Your task to perform on an android device: Search for vegetarian restaurants on Maps Image 0: 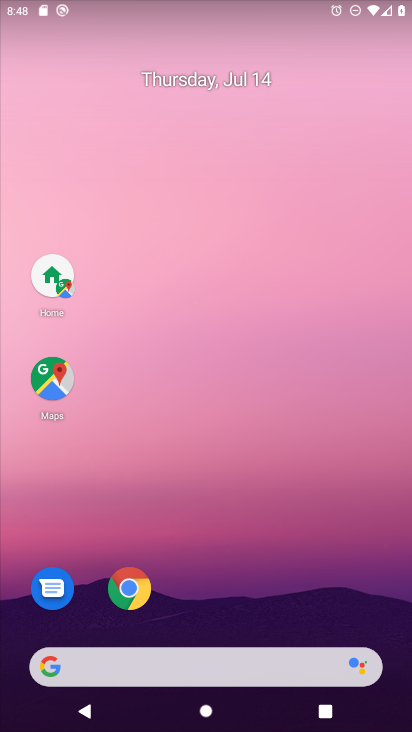
Step 0: click (31, 426)
Your task to perform on an android device: Search for vegetarian restaurants on Maps Image 1: 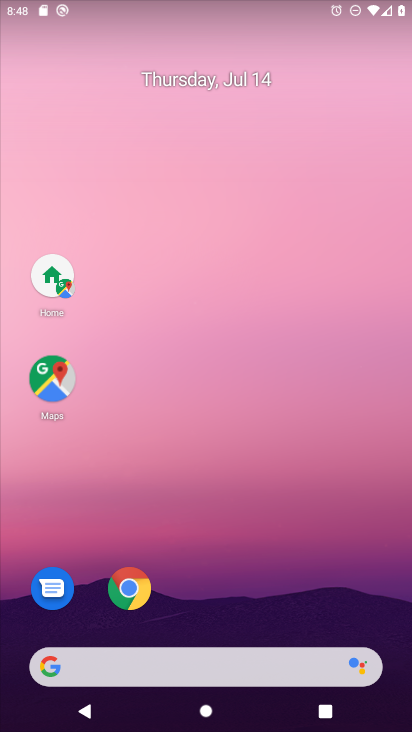
Step 1: click (50, 390)
Your task to perform on an android device: Search for vegetarian restaurants on Maps Image 2: 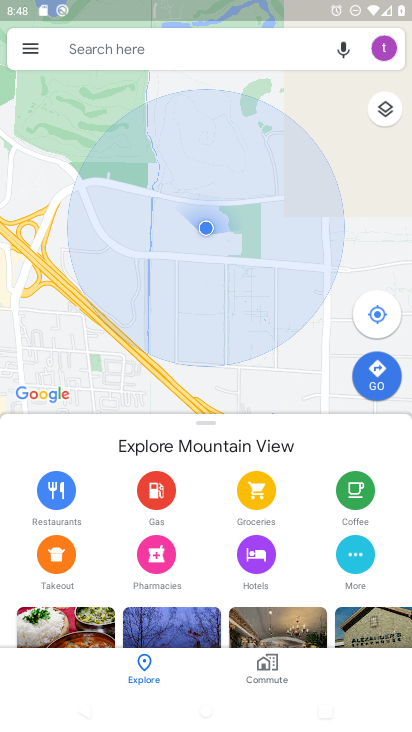
Step 2: click (116, 52)
Your task to perform on an android device: Search for vegetarian restaurants on Maps Image 3: 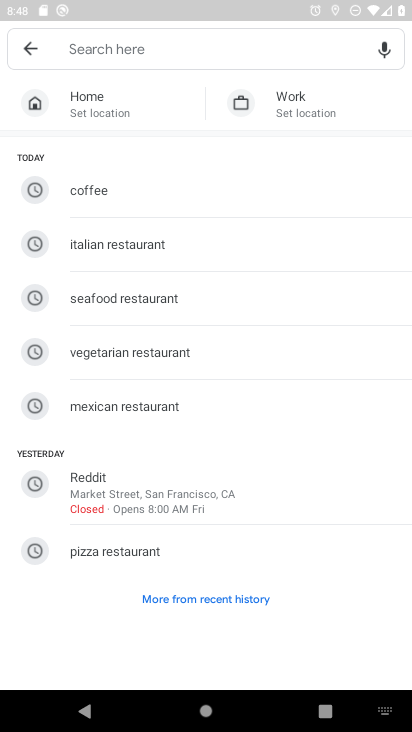
Step 3: click (158, 341)
Your task to perform on an android device: Search for vegetarian restaurants on Maps Image 4: 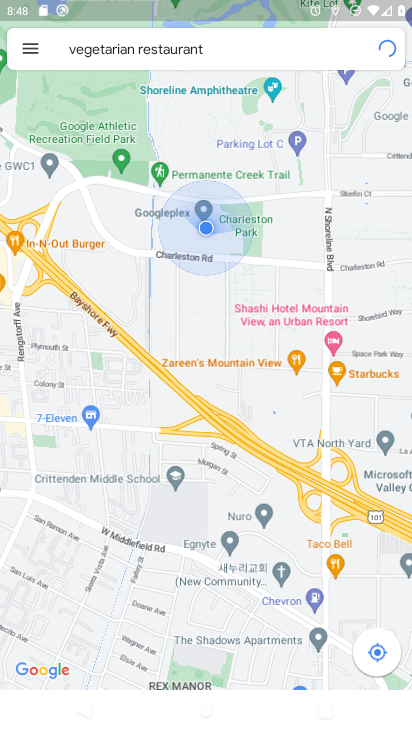
Step 4: task complete